Your task to perform on an android device: Open Reddit.com Image 0: 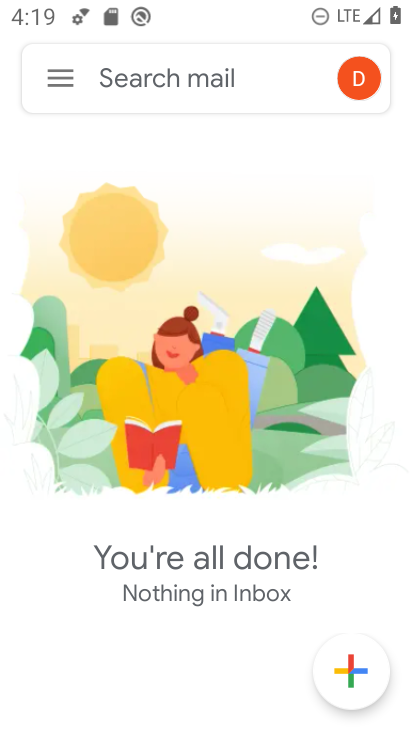
Step 0: press home button
Your task to perform on an android device: Open Reddit.com Image 1: 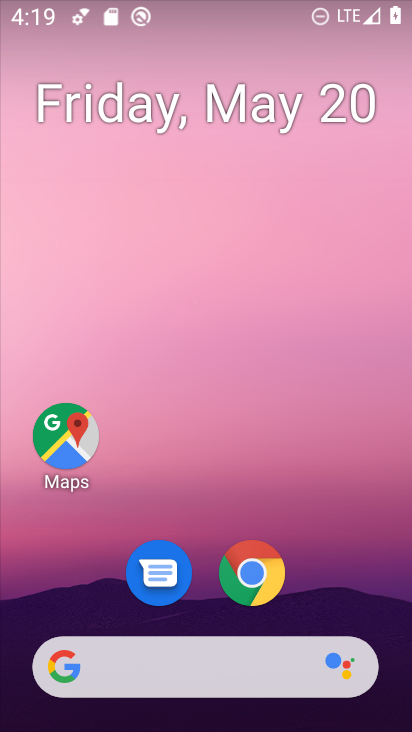
Step 1: click (266, 567)
Your task to perform on an android device: Open Reddit.com Image 2: 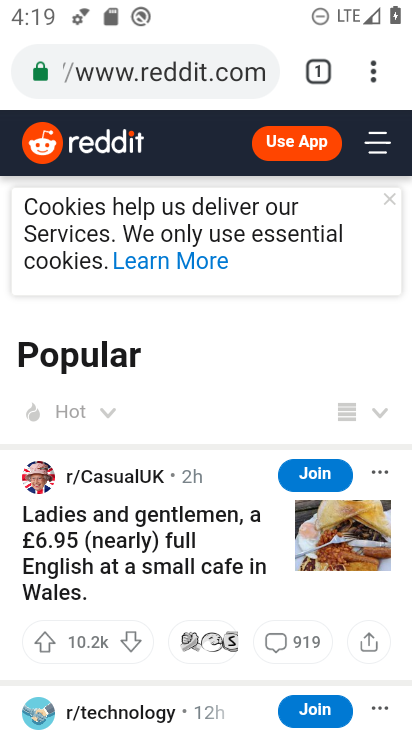
Step 2: task complete